Your task to perform on an android device: Open calendar and show me the second week of next month Image 0: 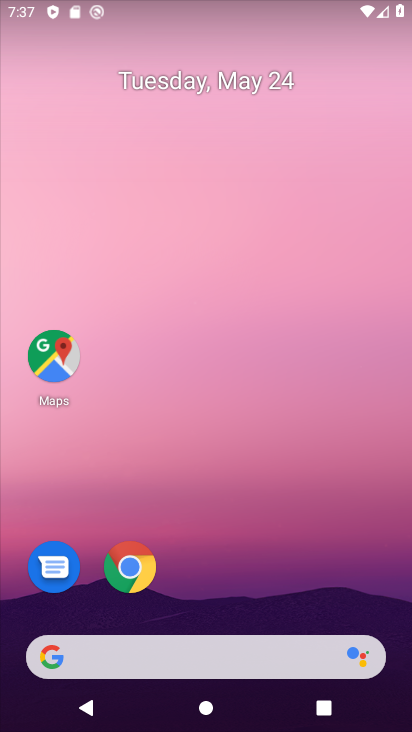
Step 0: click (208, 76)
Your task to perform on an android device: Open calendar and show me the second week of next month Image 1: 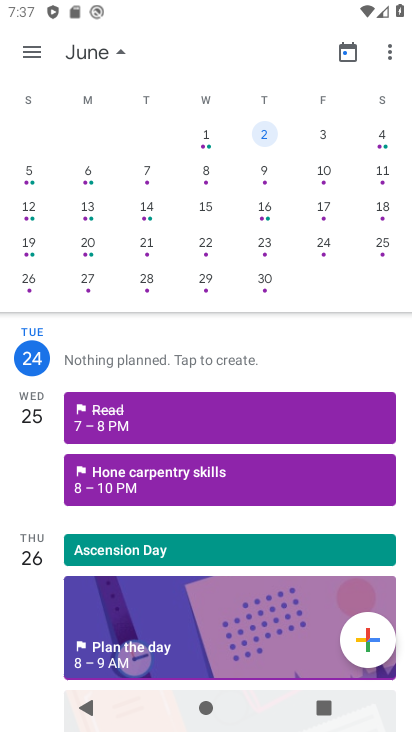
Step 1: click (199, 170)
Your task to perform on an android device: Open calendar and show me the second week of next month Image 2: 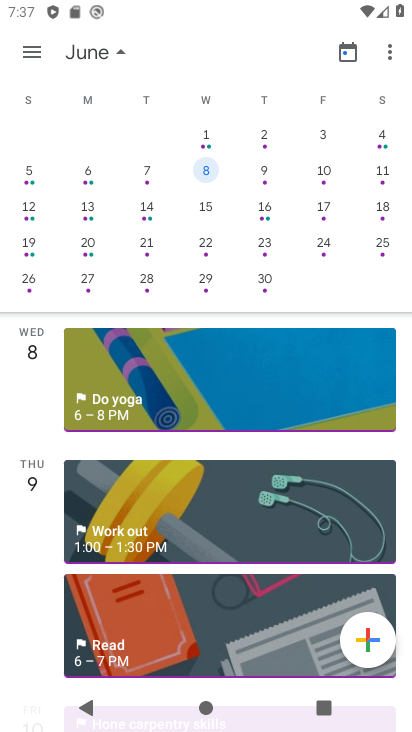
Step 2: task complete